Your task to perform on an android device: Show me productivity apps on the Play Store Image 0: 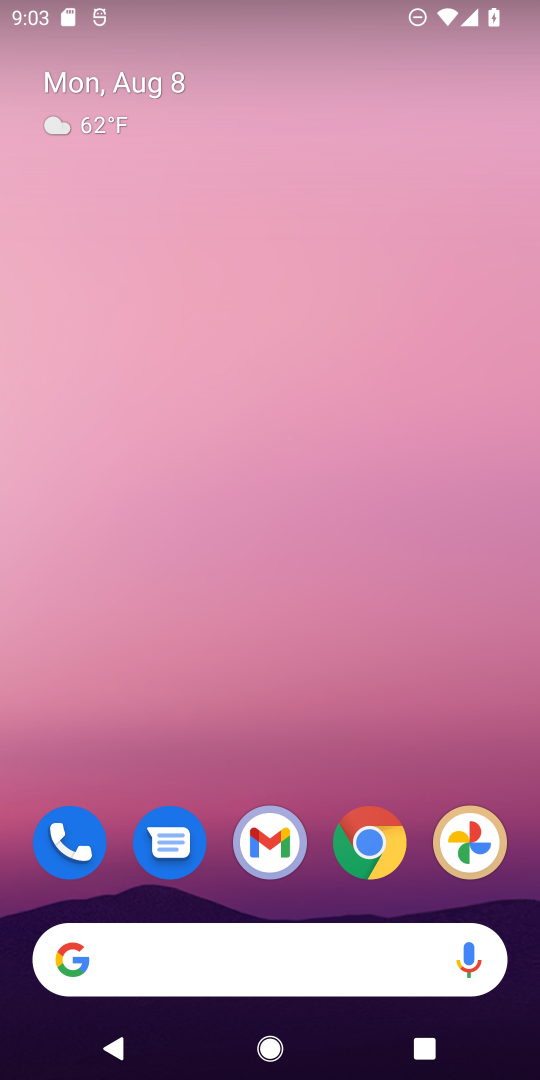
Step 0: drag from (282, 750) to (285, 1)
Your task to perform on an android device: Show me productivity apps on the Play Store Image 1: 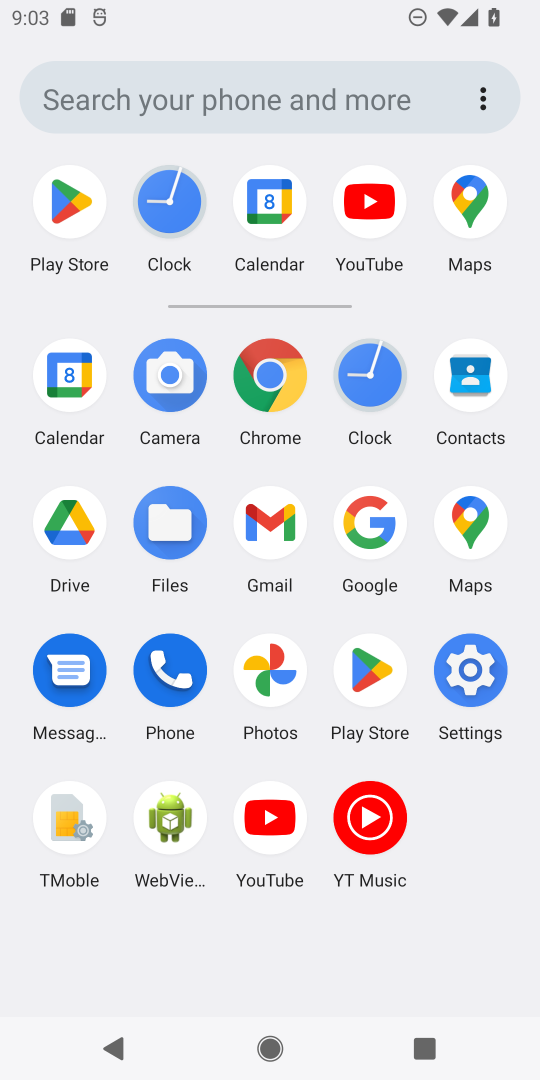
Step 1: click (377, 664)
Your task to perform on an android device: Show me productivity apps on the Play Store Image 2: 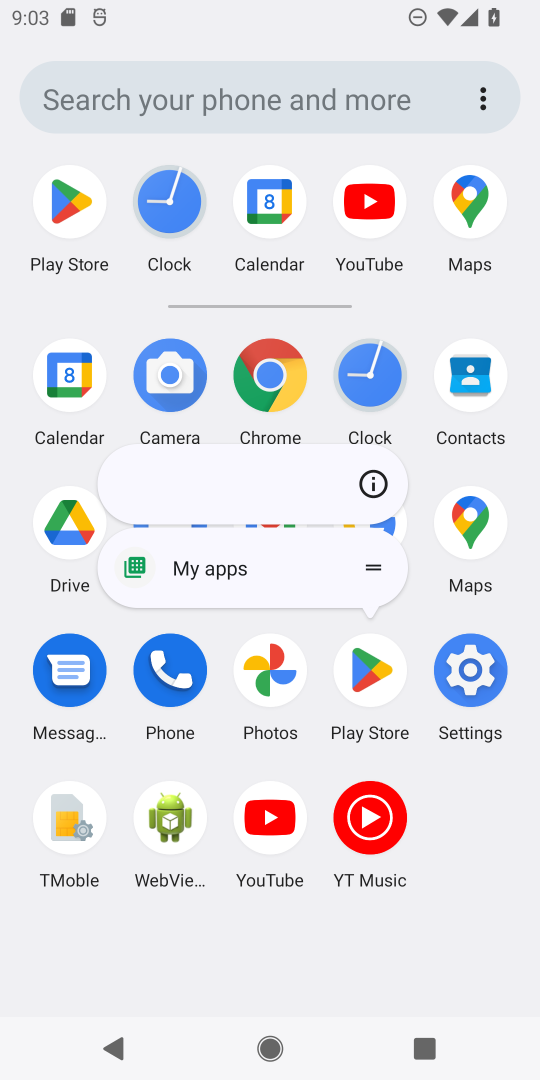
Step 2: click (377, 664)
Your task to perform on an android device: Show me productivity apps on the Play Store Image 3: 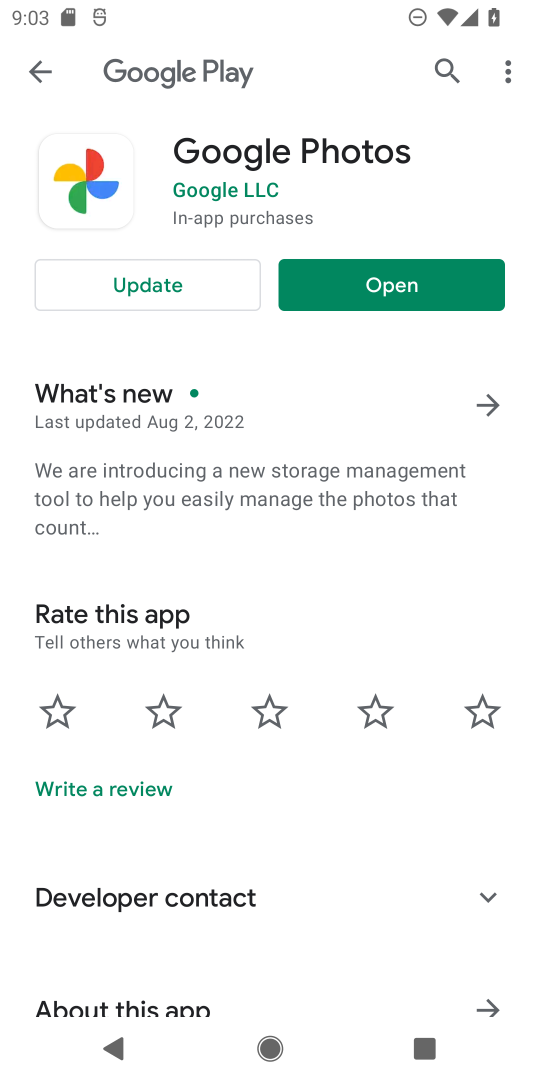
Step 3: click (39, 65)
Your task to perform on an android device: Show me productivity apps on the Play Store Image 4: 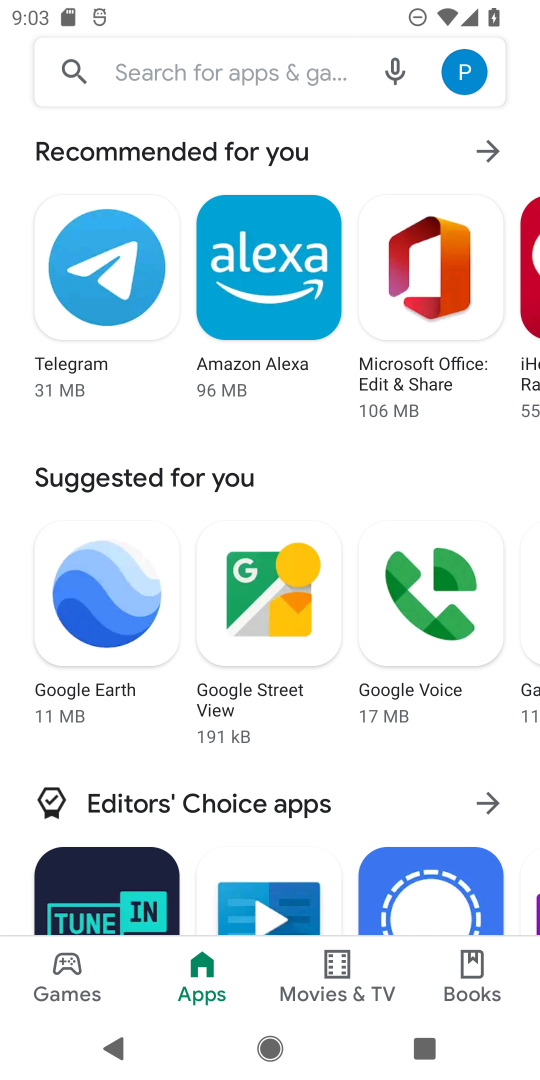
Step 4: drag from (372, 183) to (385, 784)
Your task to perform on an android device: Show me productivity apps on the Play Store Image 5: 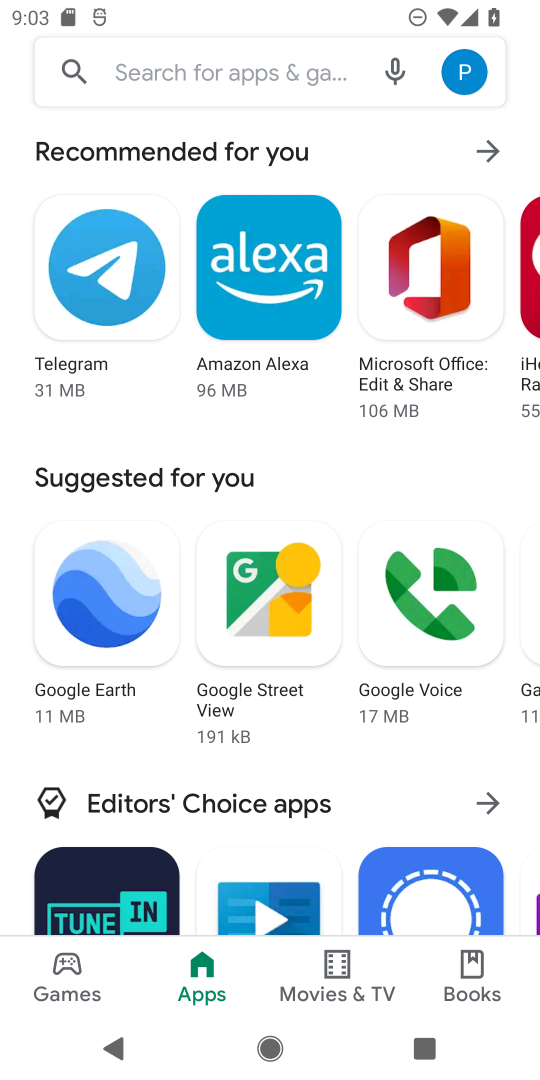
Step 5: press back button
Your task to perform on an android device: Show me productivity apps on the Play Store Image 6: 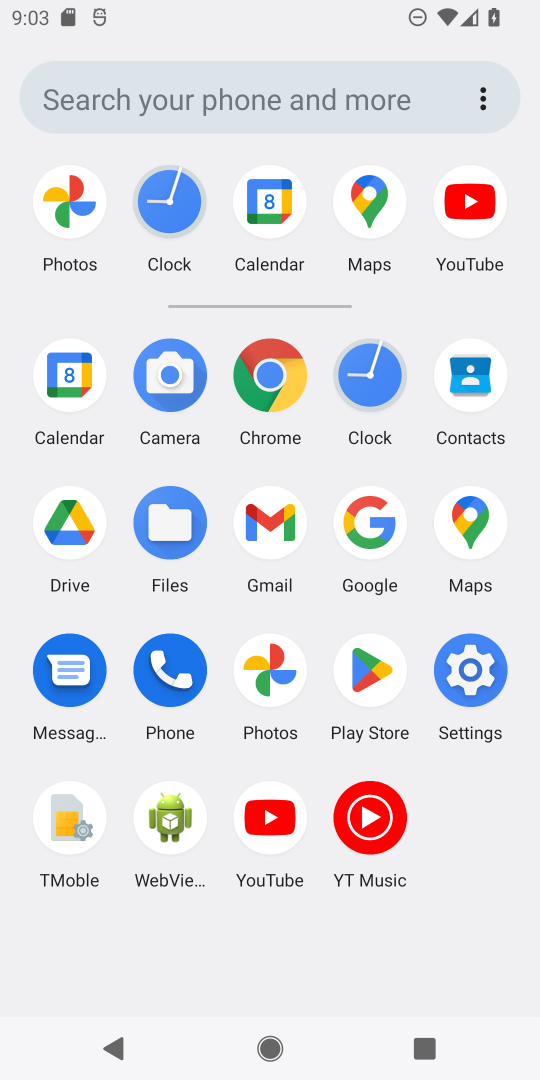
Step 6: click (375, 676)
Your task to perform on an android device: Show me productivity apps on the Play Store Image 7: 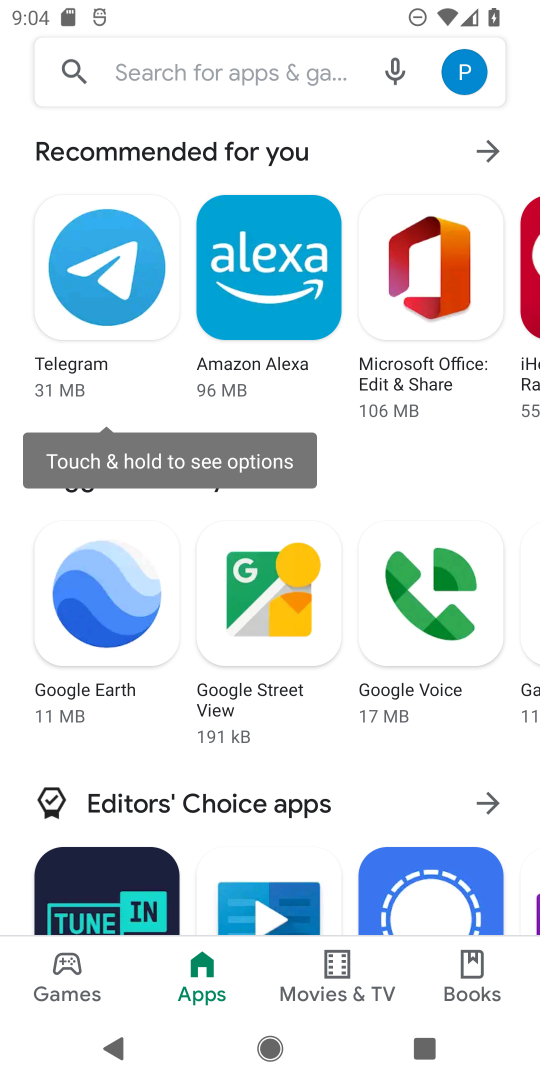
Step 7: task complete